Your task to perform on an android device: View the shopping cart on ebay. Add "lenovo thinkpad" to the cart on ebay Image 0: 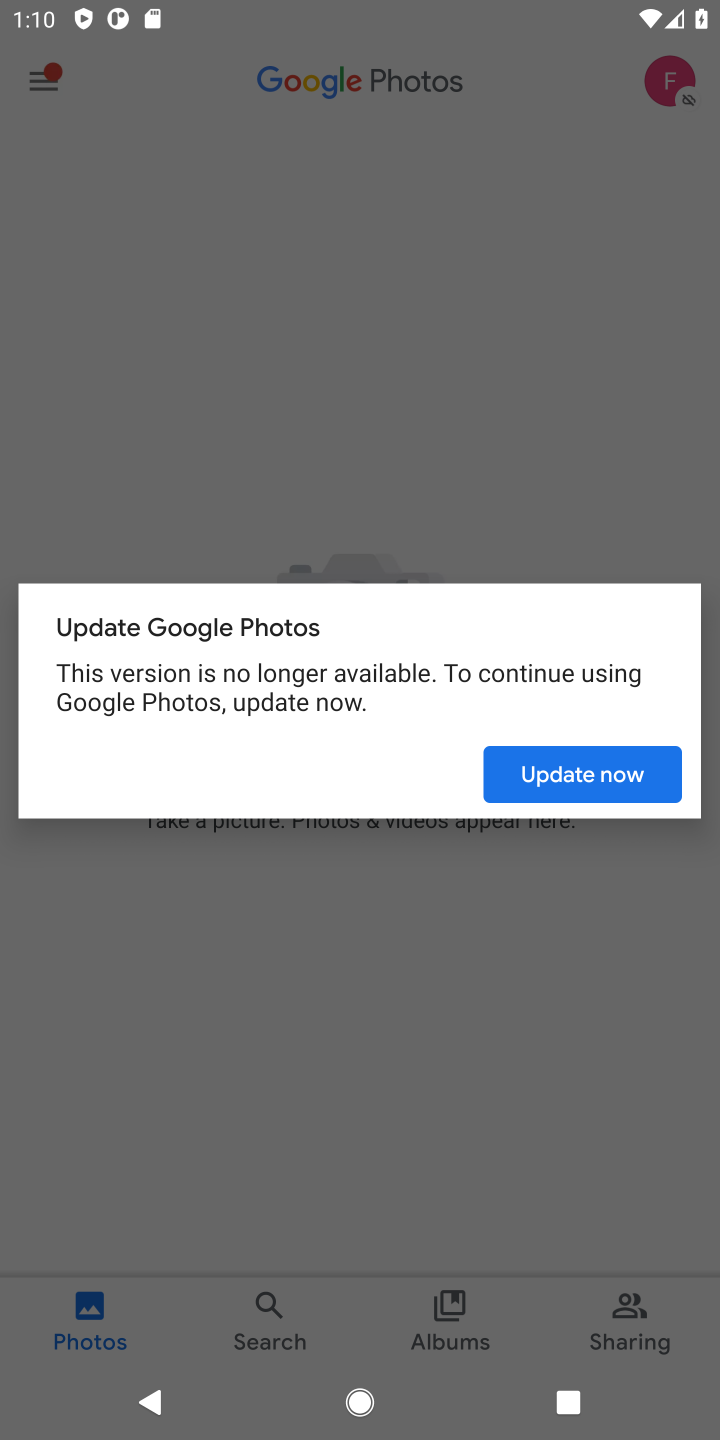
Step 0: press home button
Your task to perform on an android device: View the shopping cart on ebay. Add "lenovo thinkpad" to the cart on ebay Image 1: 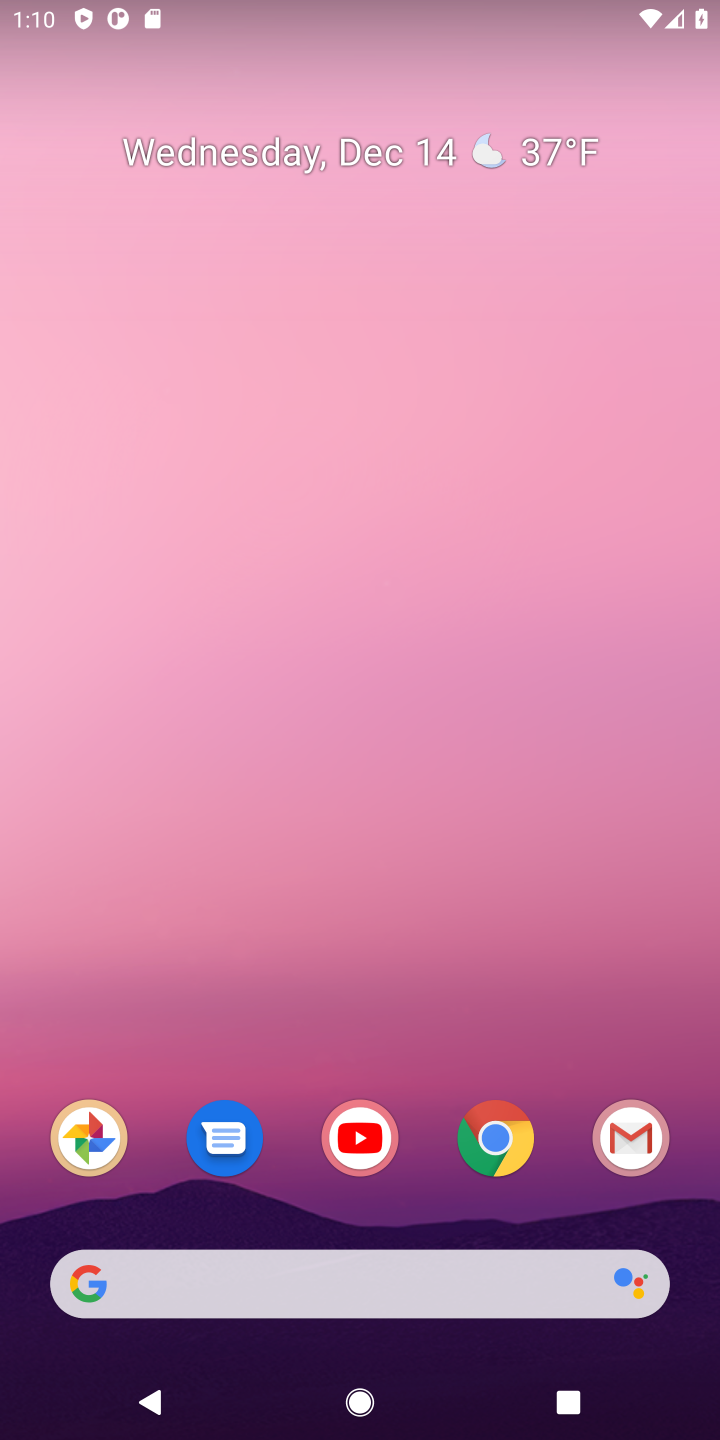
Step 1: click (518, 1126)
Your task to perform on an android device: View the shopping cart on ebay. Add "lenovo thinkpad" to the cart on ebay Image 2: 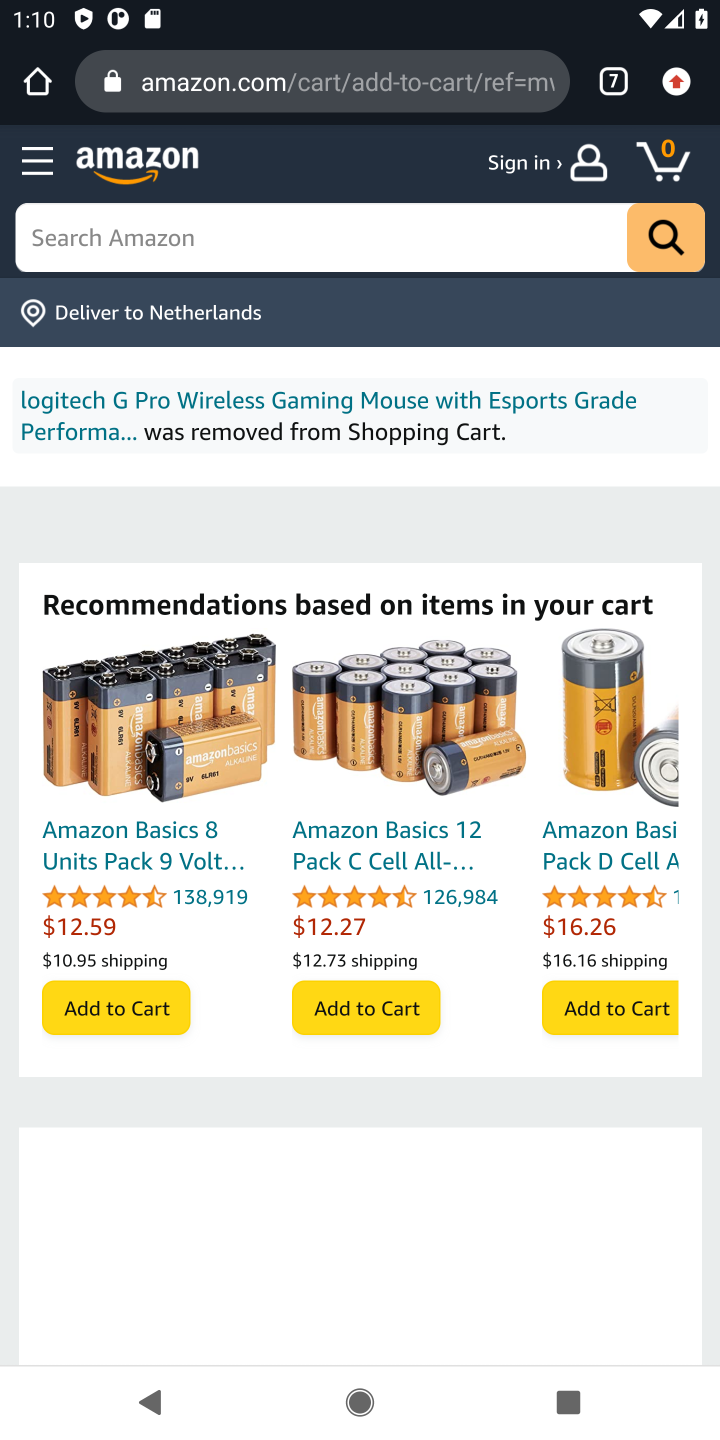
Step 2: click (610, 91)
Your task to perform on an android device: View the shopping cart on ebay. Add "lenovo thinkpad" to the cart on ebay Image 3: 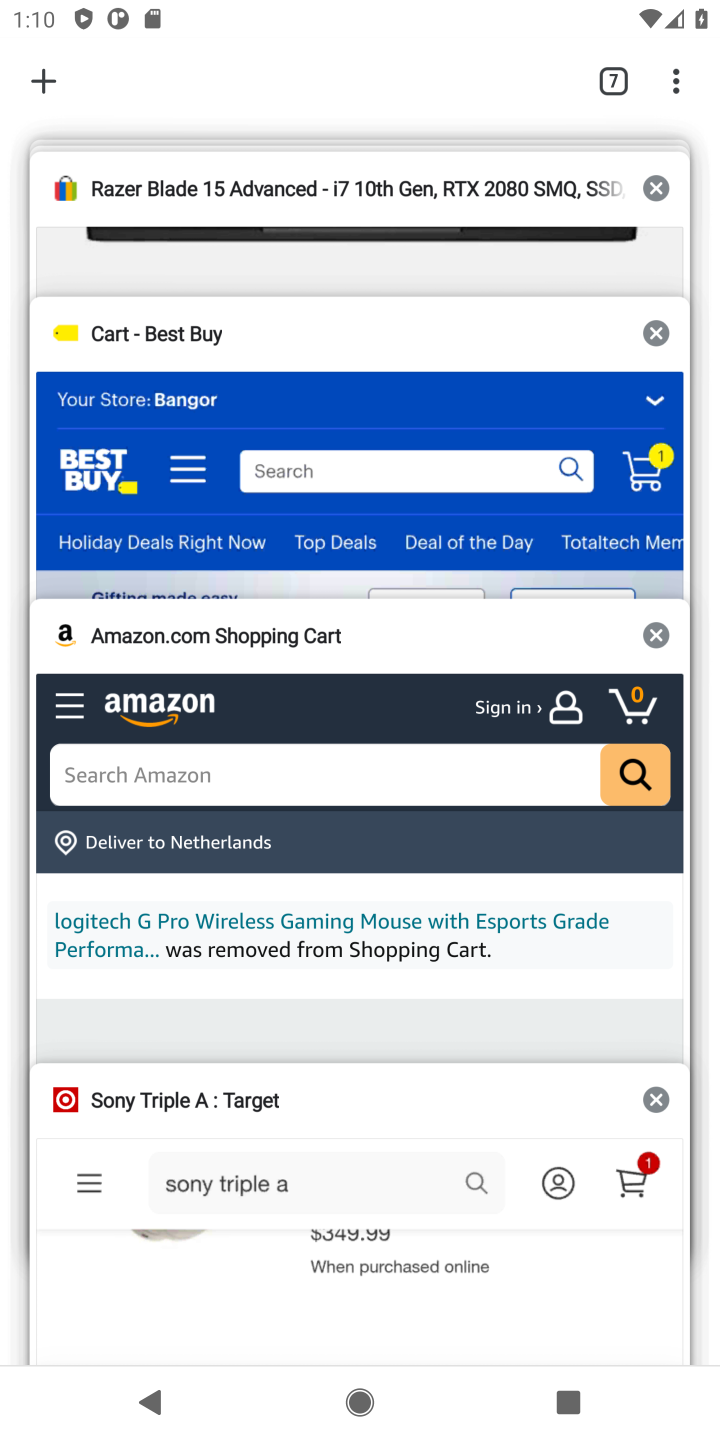
Step 3: click (244, 218)
Your task to perform on an android device: View the shopping cart on ebay. Add "lenovo thinkpad" to the cart on ebay Image 4: 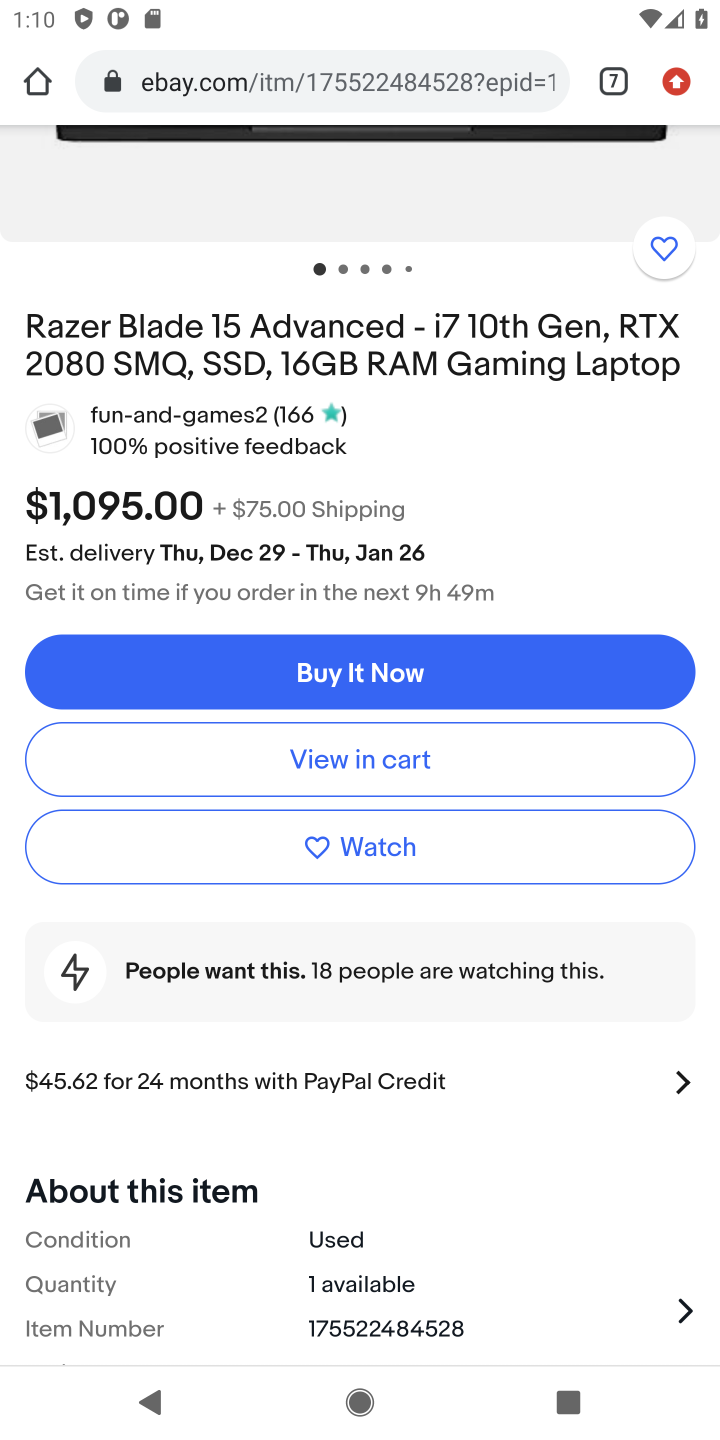
Step 4: click (433, 754)
Your task to perform on an android device: View the shopping cart on ebay. Add "lenovo thinkpad" to the cart on ebay Image 5: 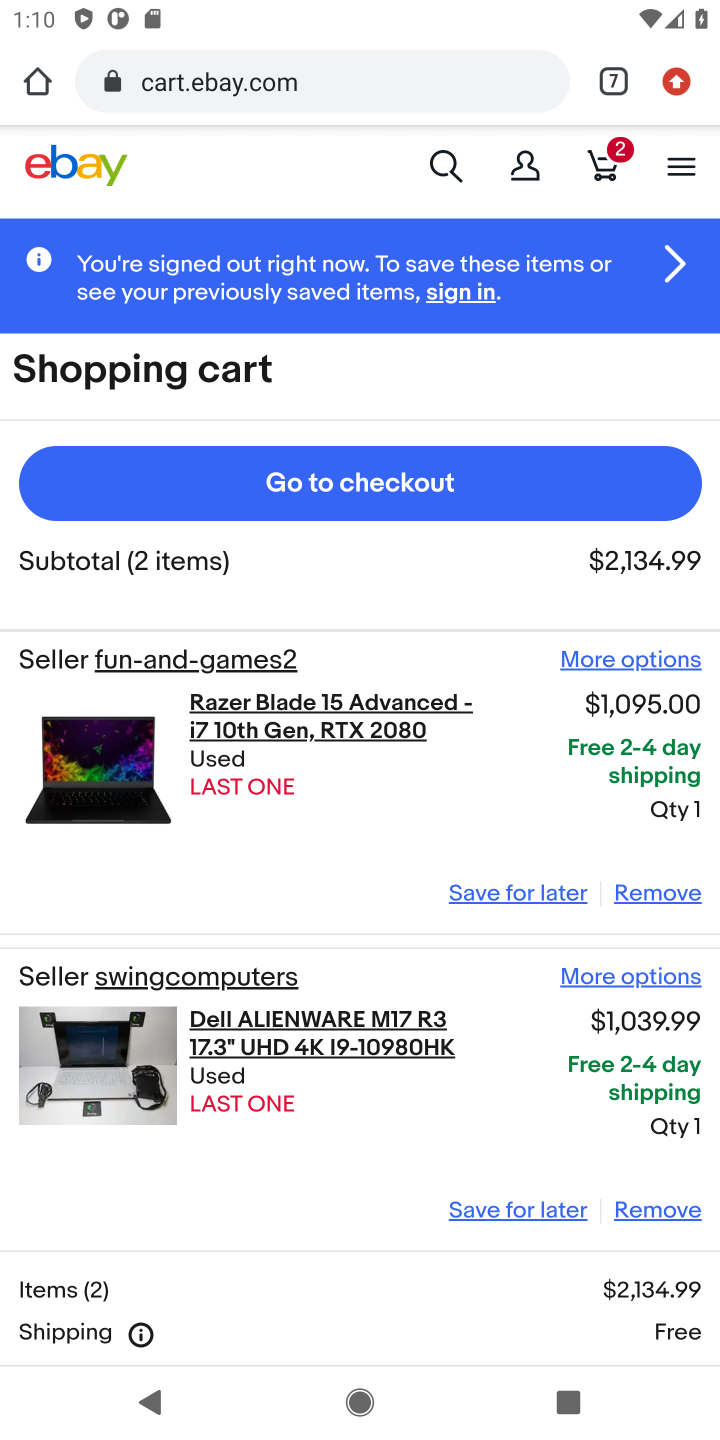
Step 5: click (445, 168)
Your task to perform on an android device: View the shopping cart on ebay. Add "lenovo thinkpad" to the cart on ebay Image 6: 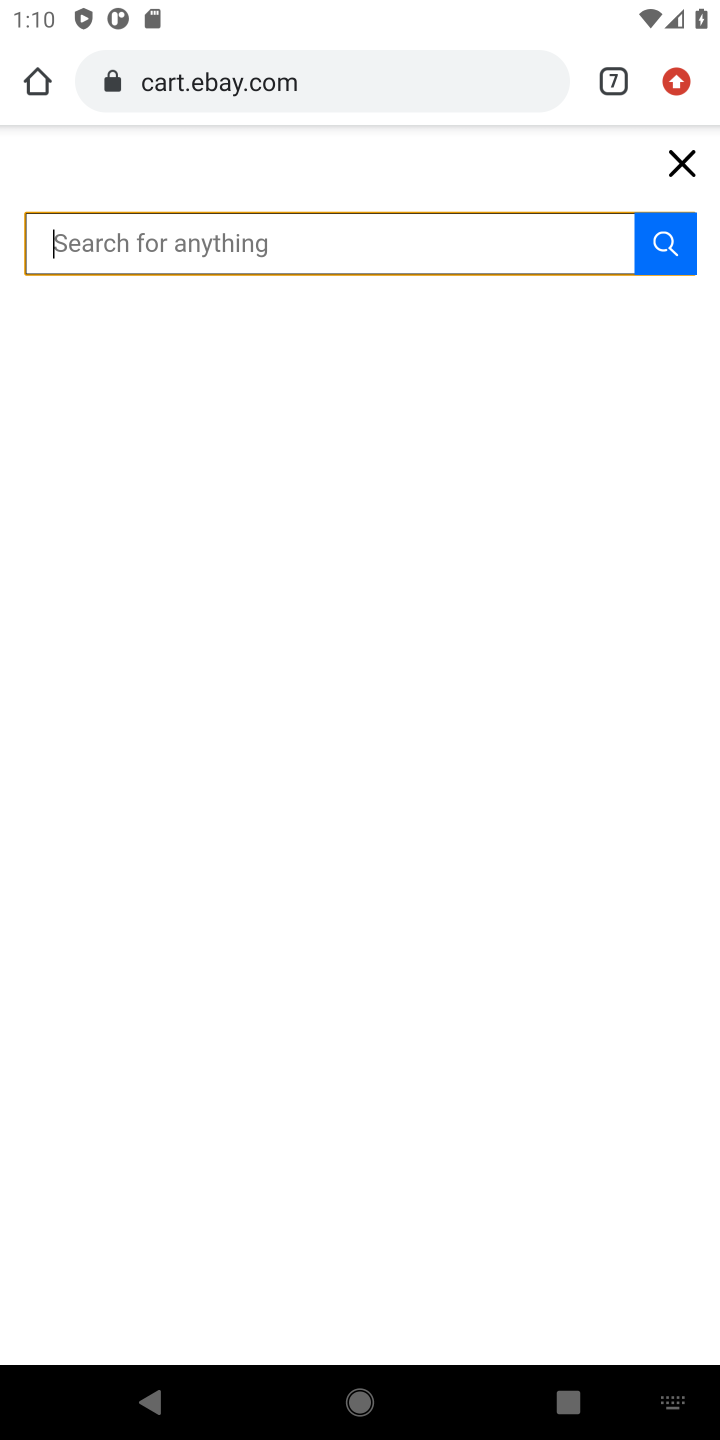
Step 6: type "lenovo thinkpad"
Your task to perform on an android device: View the shopping cart on ebay. Add "lenovo thinkpad" to the cart on ebay Image 7: 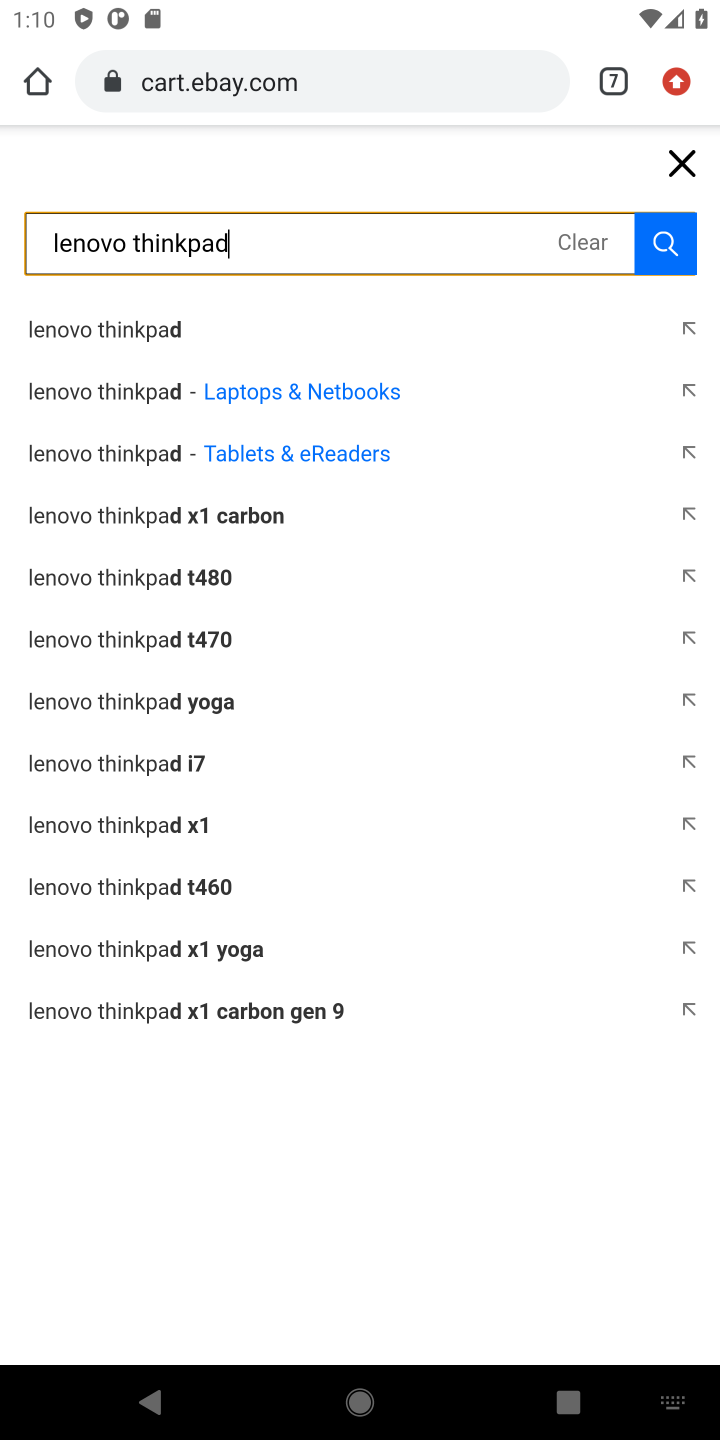
Step 7: click (140, 392)
Your task to perform on an android device: View the shopping cart on ebay. Add "lenovo thinkpad" to the cart on ebay Image 8: 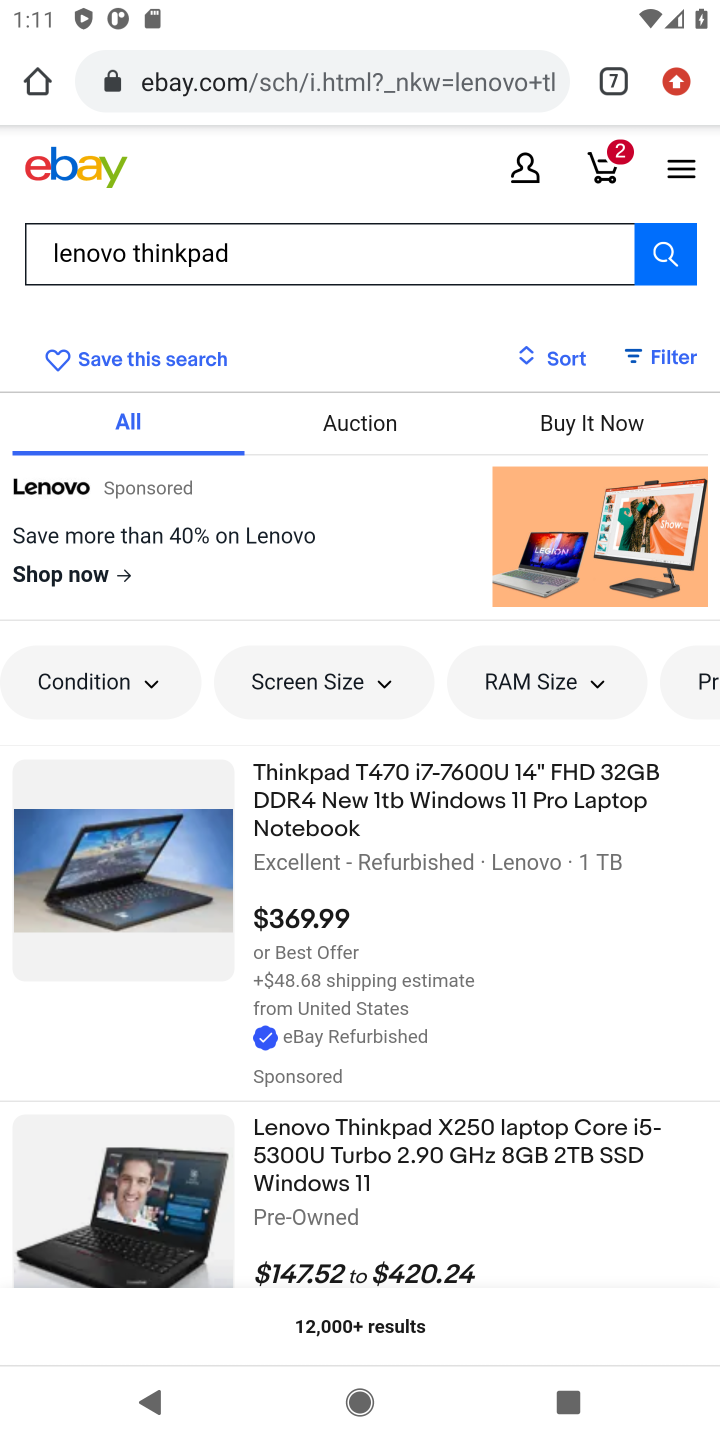
Step 8: click (386, 1162)
Your task to perform on an android device: View the shopping cart on ebay. Add "lenovo thinkpad" to the cart on ebay Image 9: 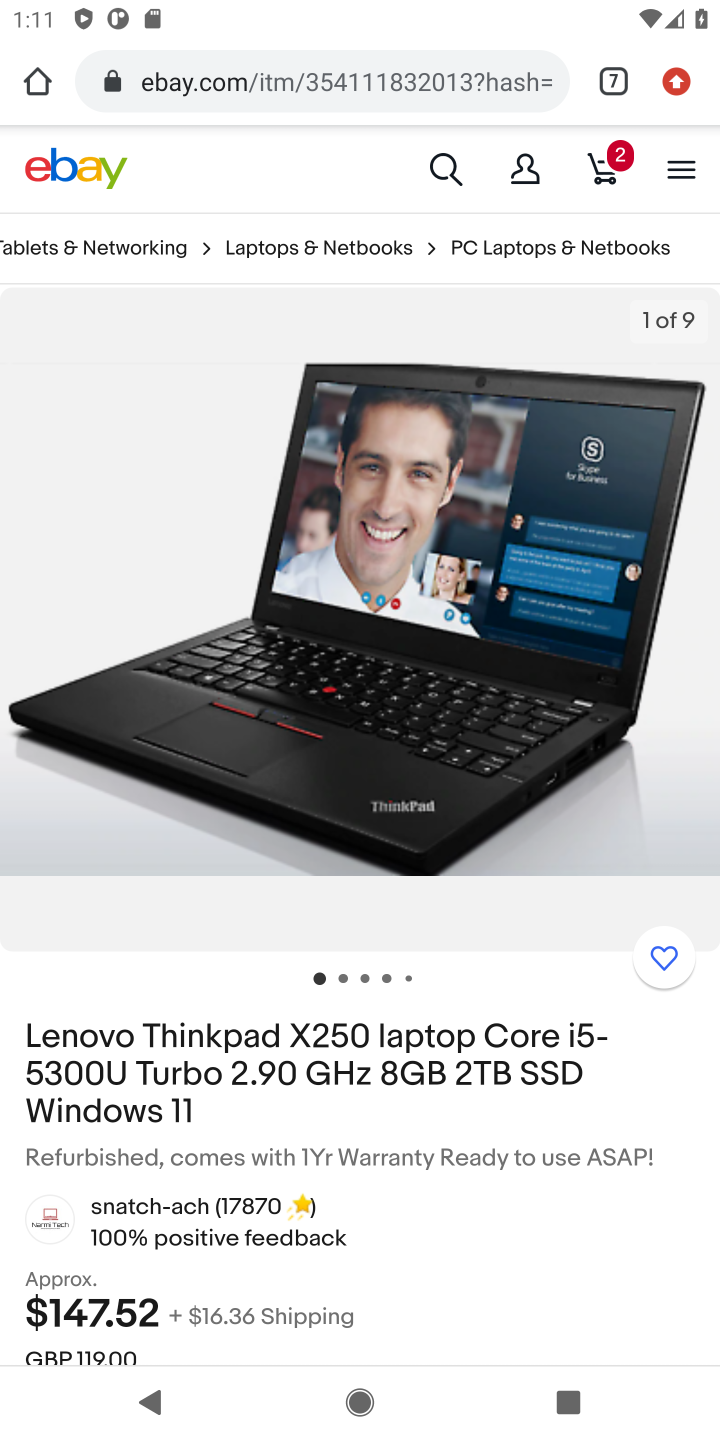
Step 9: drag from (461, 1254) to (208, 343)
Your task to perform on an android device: View the shopping cart on ebay. Add "lenovo thinkpad" to the cart on ebay Image 10: 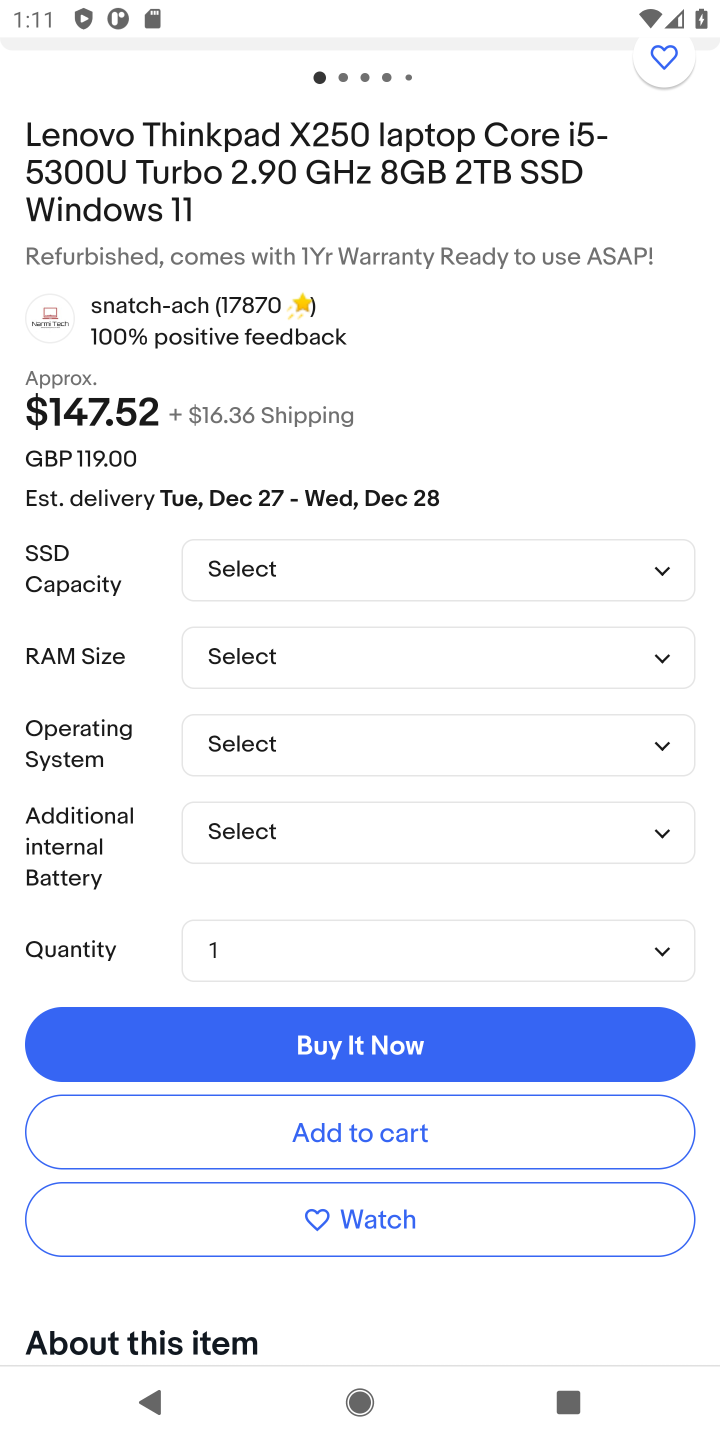
Step 10: click (362, 1131)
Your task to perform on an android device: View the shopping cart on ebay. Add "lenovo thinkpad" to the cart on ebay Image 11: 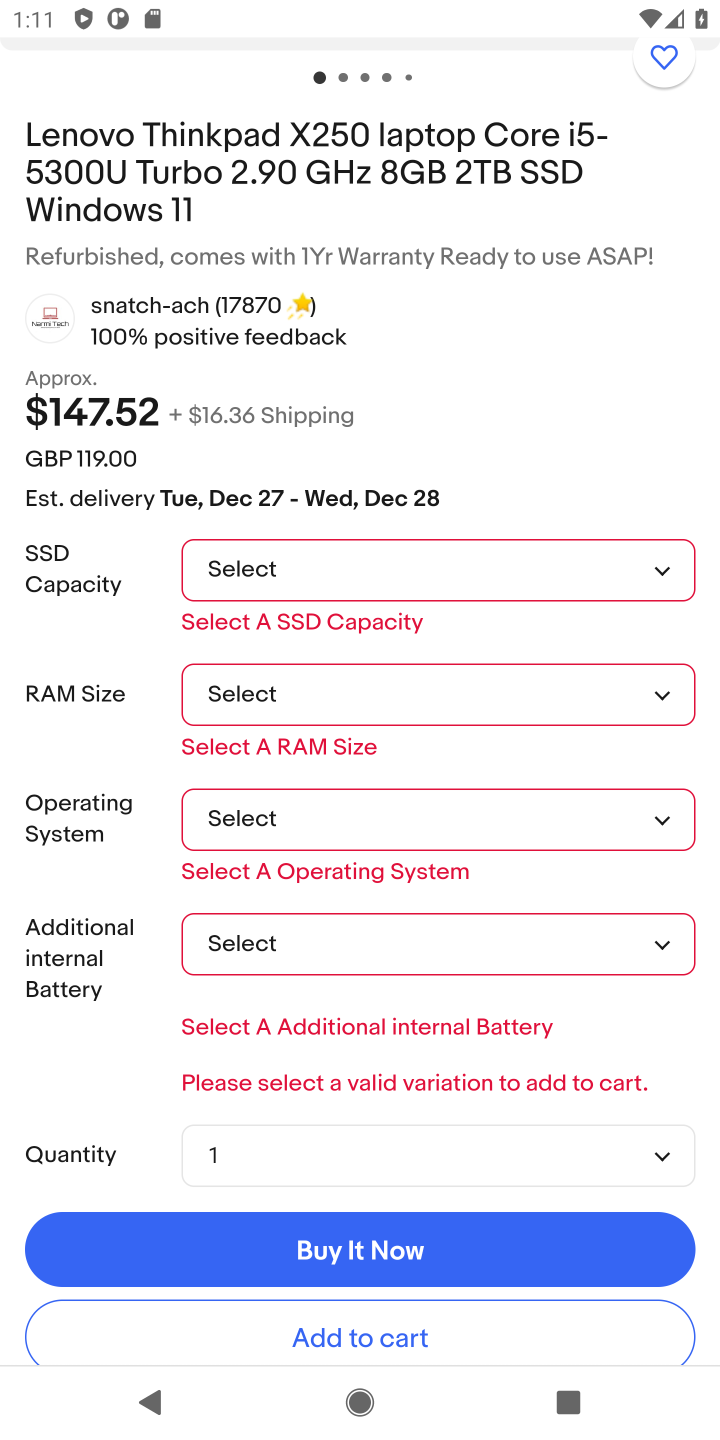
Step 11: click (643, 560)
Your task to perform on an android device: View the shopping cart on ebay. Add "lenovo thinkpad" to the cart on ebay Image 12: 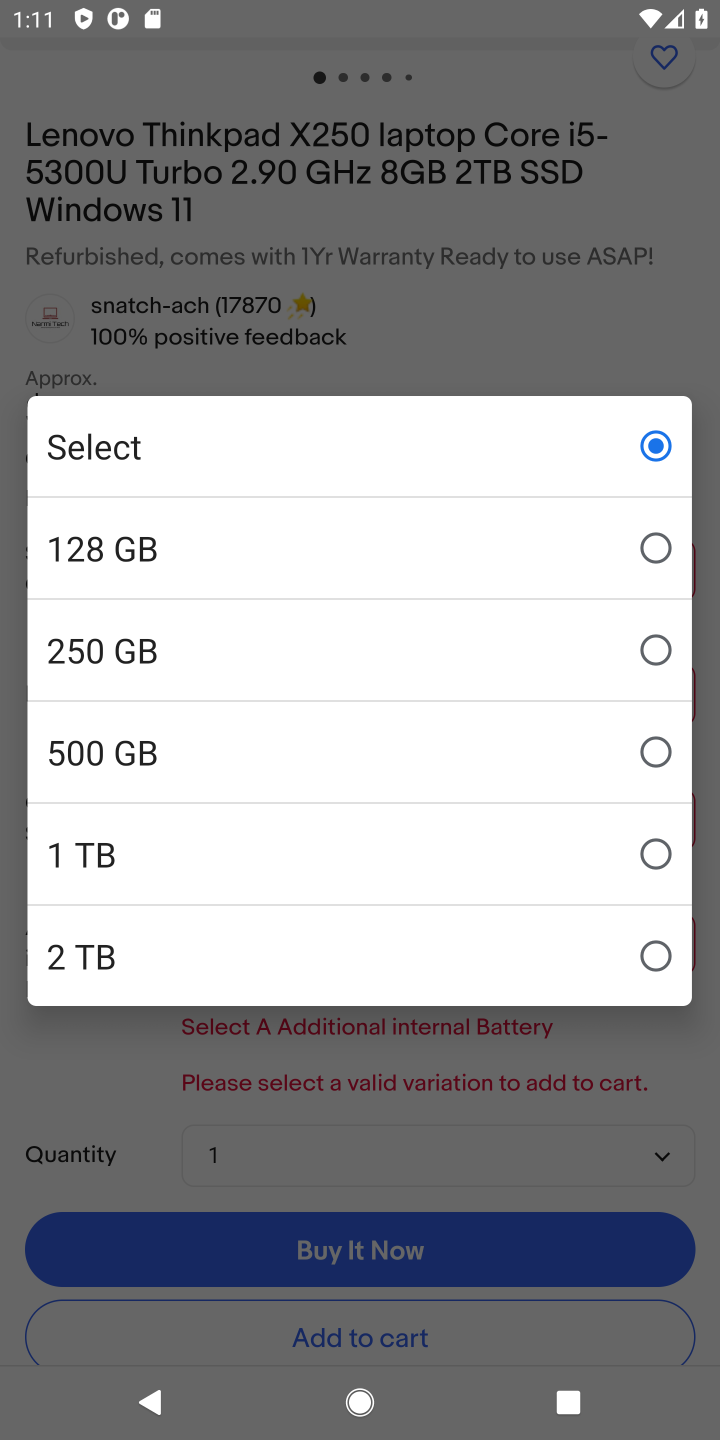
Step 12: click (652, 553)
Your task to perform on an android device: View the shopping cart on ebay. Add "lenovo thinkpad" to the cart on ebay Image 13: 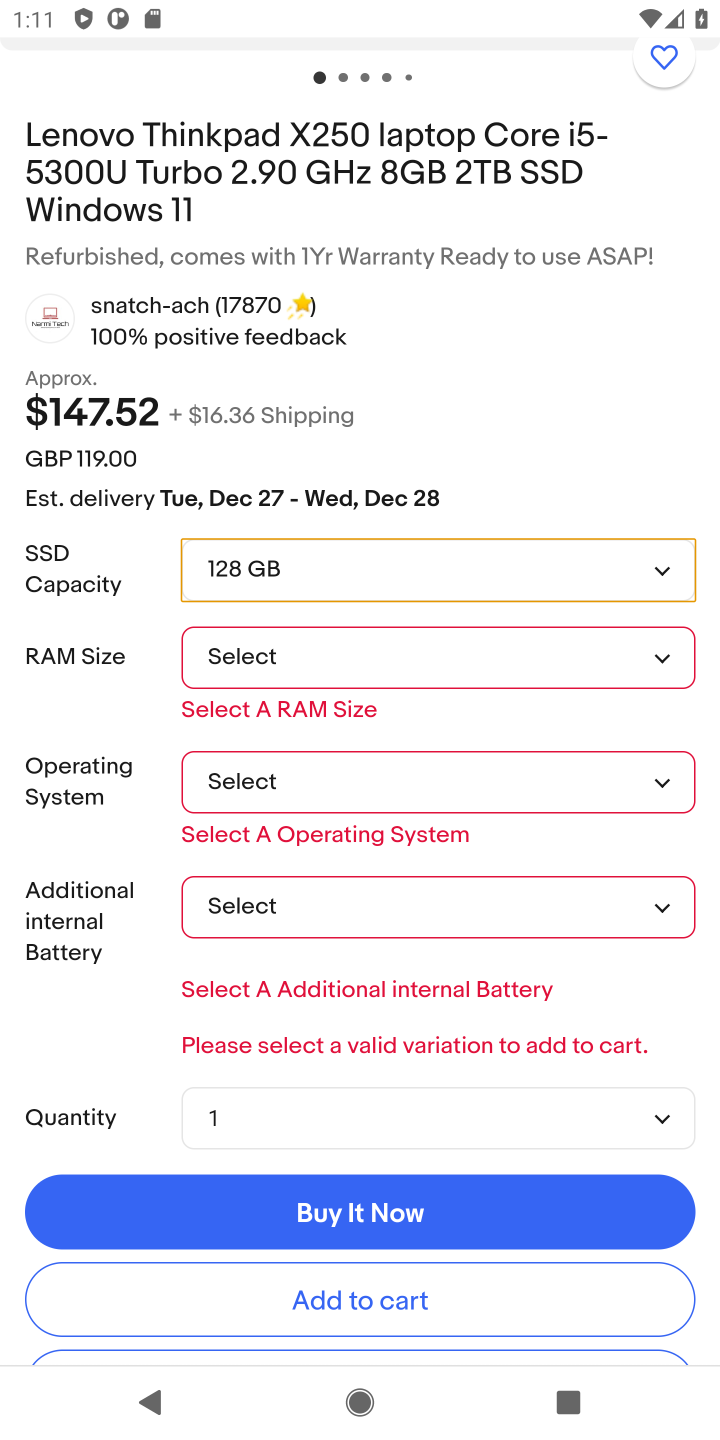
Step 13: click (654, 666)
Your task to perform on an android device: View the shopping cart on ebay. Add "lenovo thinkpad" to the cart on ebay Image 14: 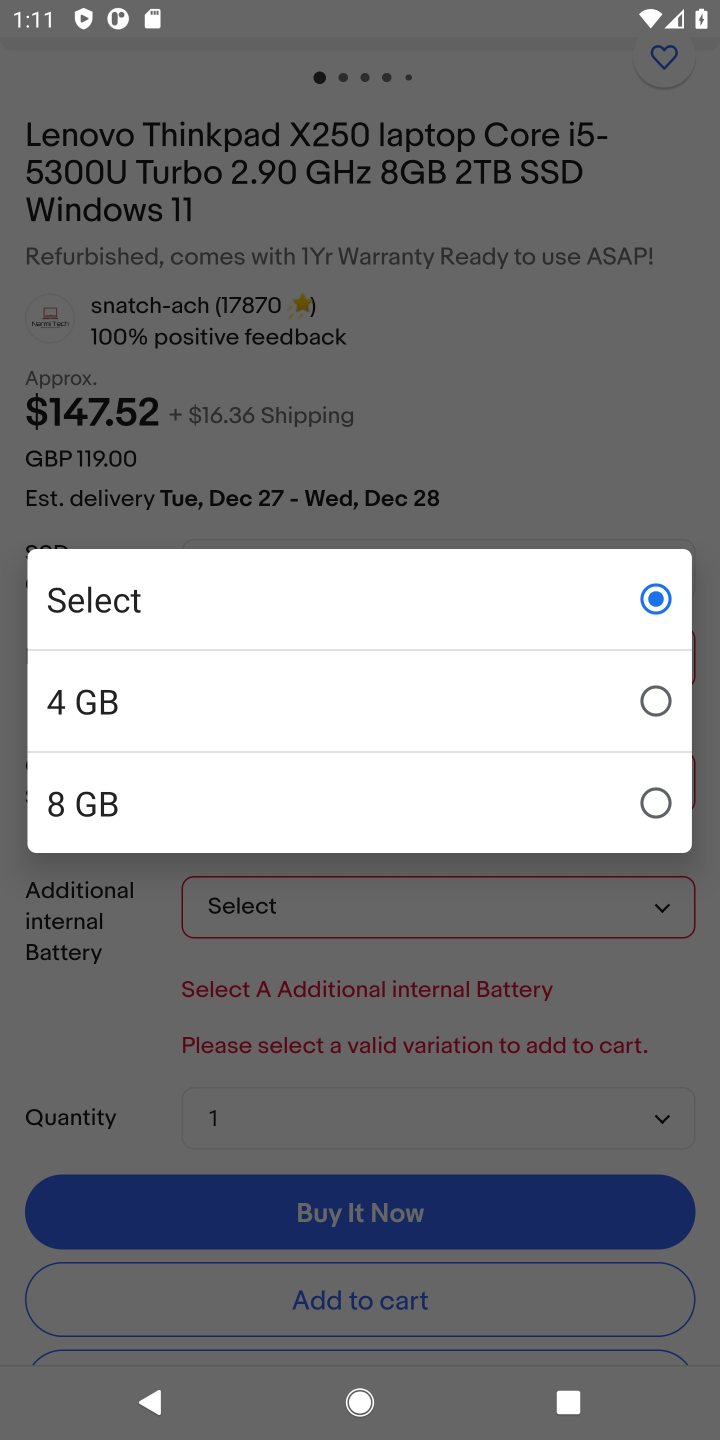
Step 14: click (651, 707)
Your task to perform on an android device: View the shopping cart on ebay. Add "lenovo thinkpad" to the cart on ebay Image 15: 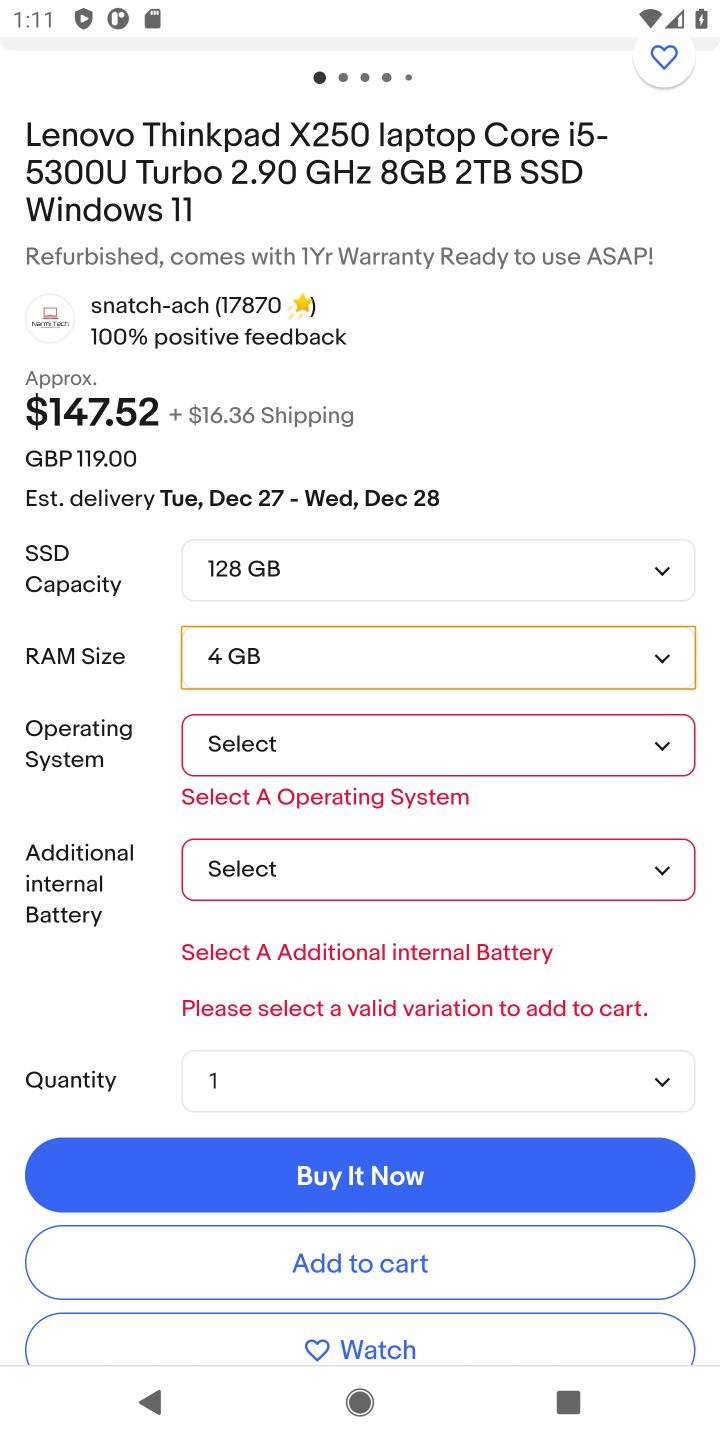
Step 15: click (650, 747)
Your task to perform on an android device: View the shopping cart on ebay. Add "lenovo thinkpad" to the cart on ebay Image 16: 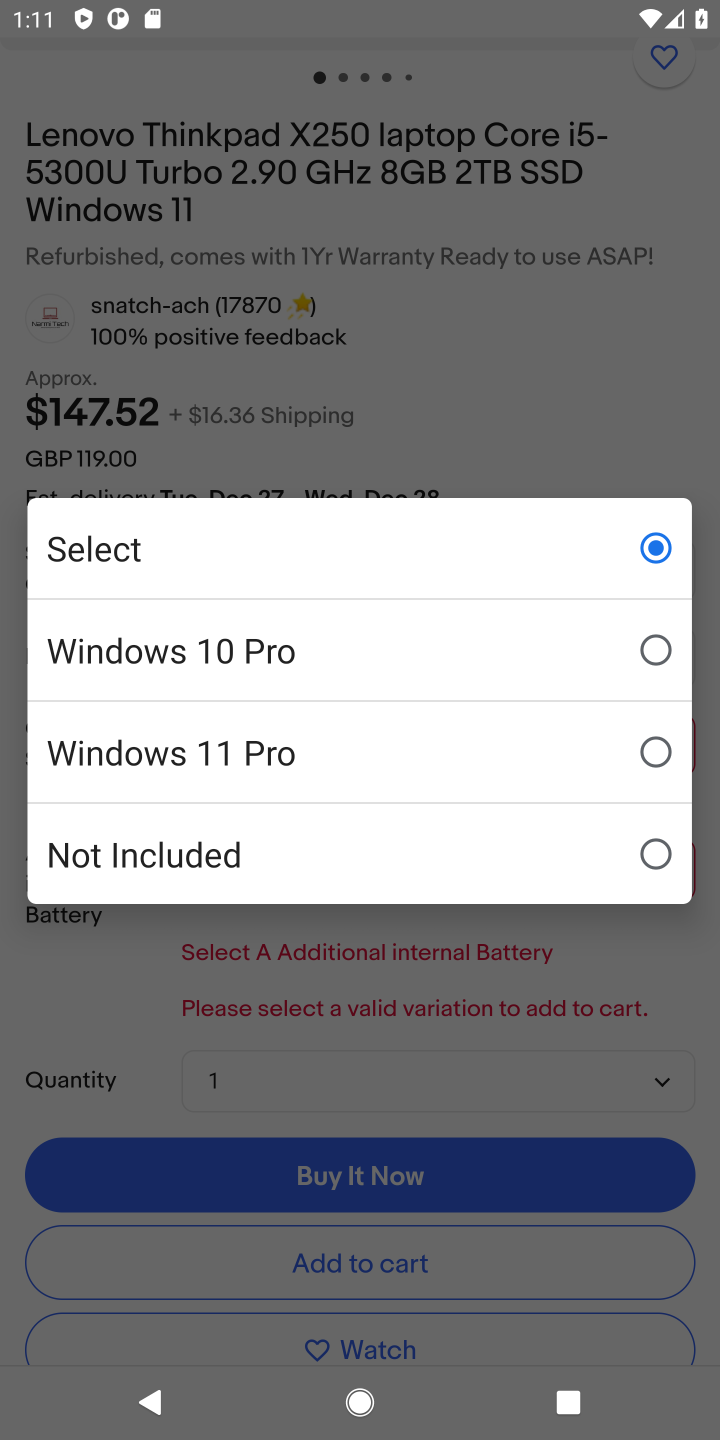
Step 16: click (663, 665)
Your task to perform on an android device: View the shopping cart on ebay. Add "lenovo thinkpad" to the cart on ebay Image 17: 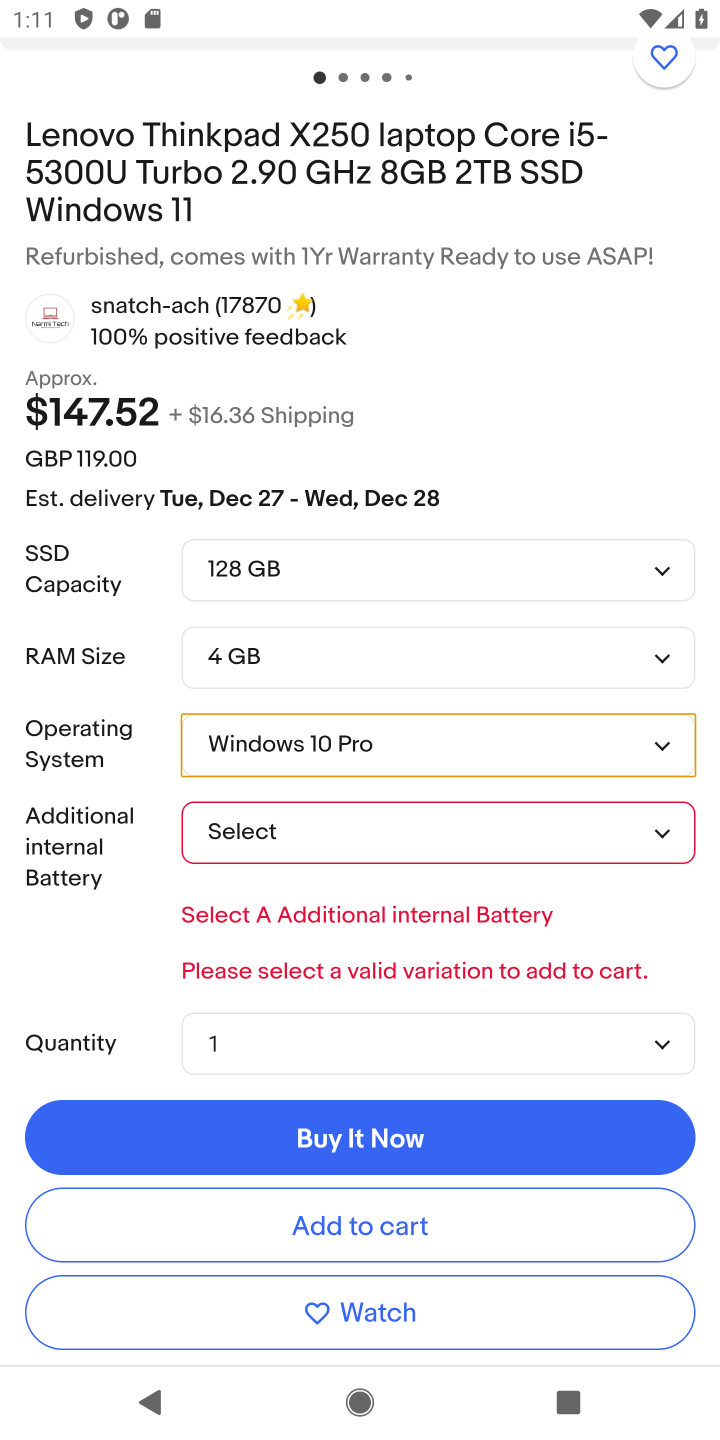
Step 17: click (592, 829)
Your task to perform on an android device: View the shopping cart on ebay. Add "lenovo thinkpad" to the cart on ebay Image 18: 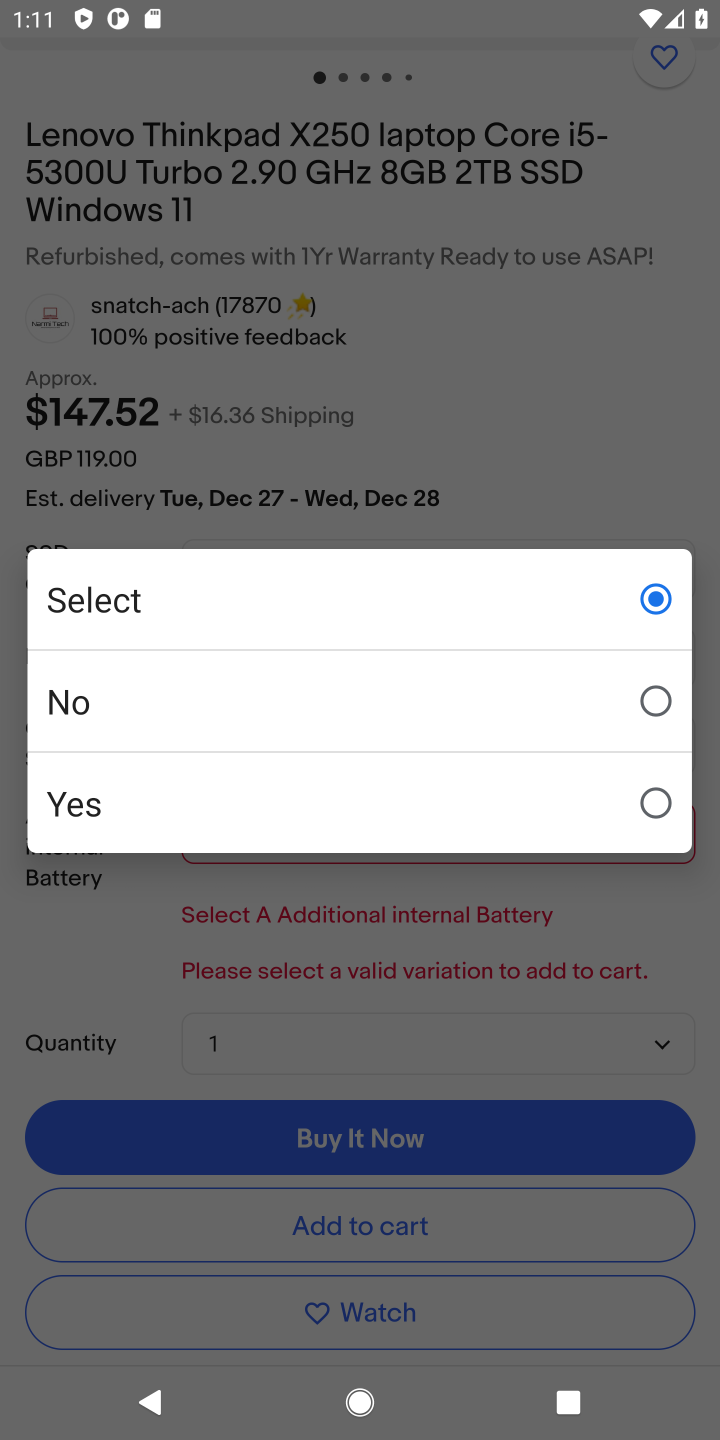
Step 18: click (664, 699)
Your task to perform on an android device: View the shopping cart on ebay. Add "lenovo thinkpad" to the cart on ebay Image 19: 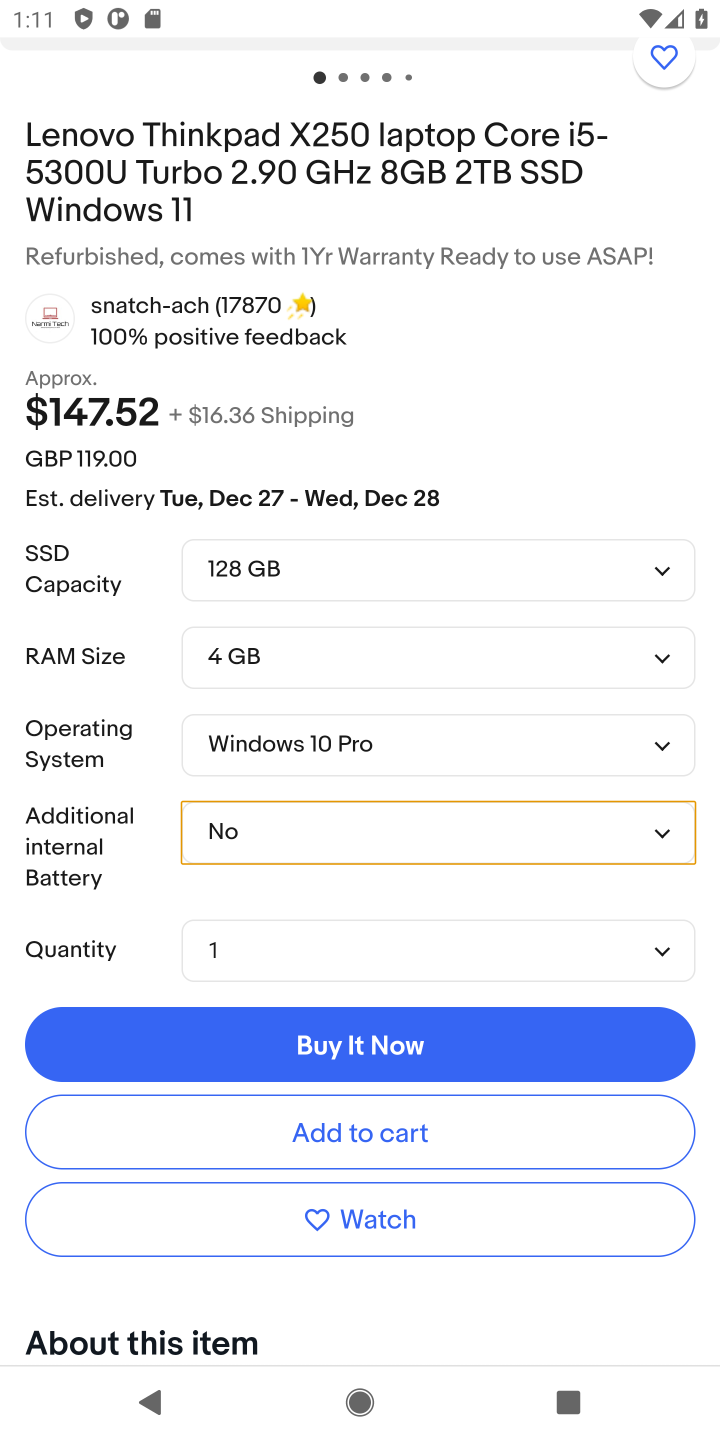
Step 19: click (450, 1137)
Your task to perform on an android device: View the shopping cart on ebay. Add "lenovo thinkpad" to the cart on ebay Image 20: 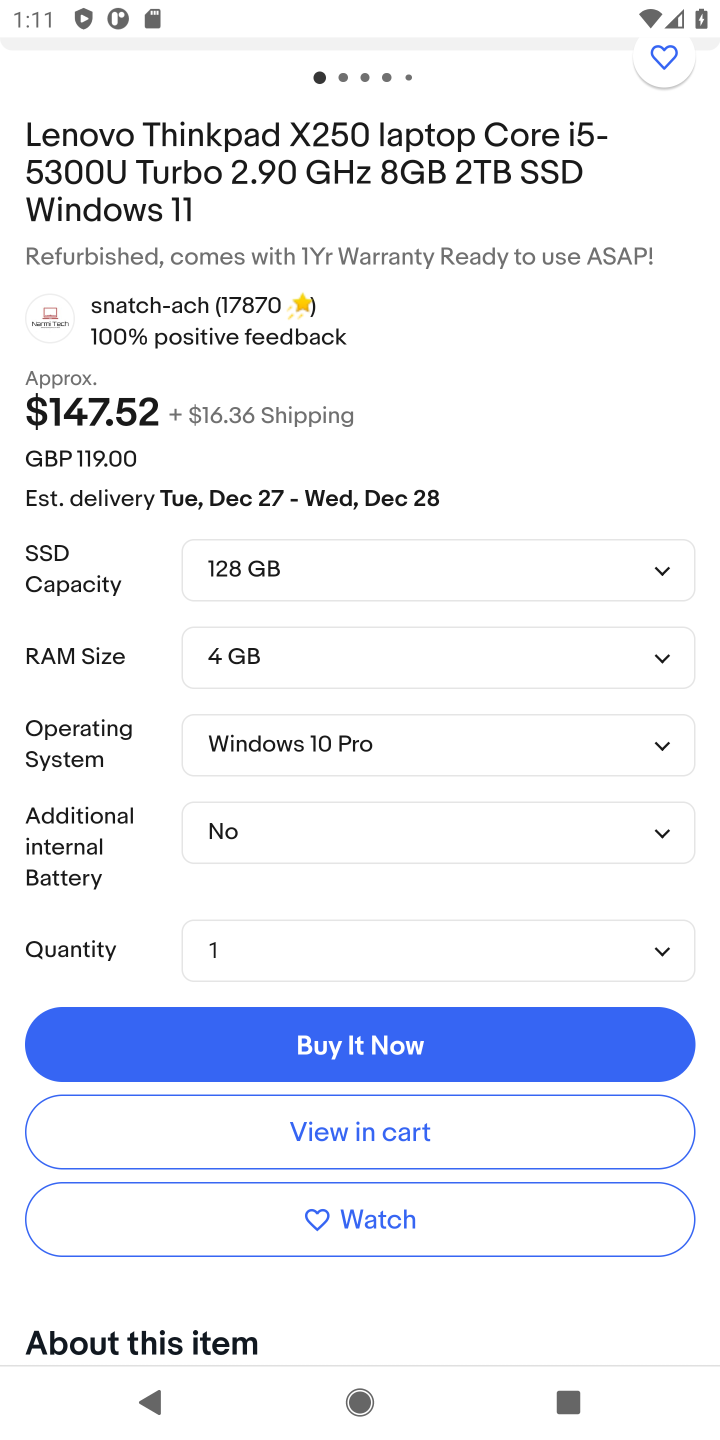
Step 20: task complete